Your task to perform on an android device: turn off picture-in-picture Image 0: 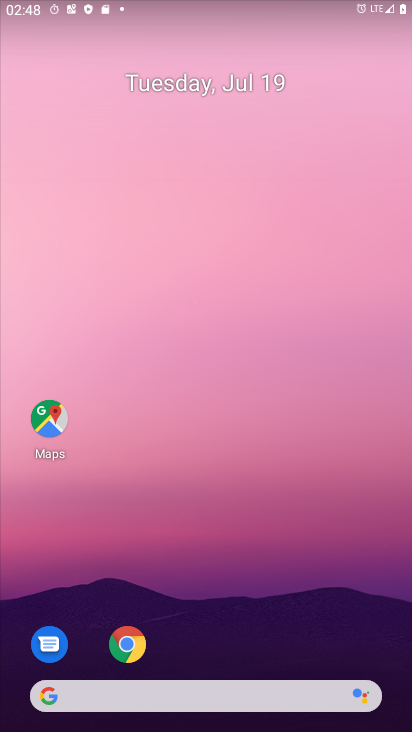
Step 0: drag from (199, 726) to (167, 296)
Your task to perform on an android device: turn off picture-in-picture Image 1: 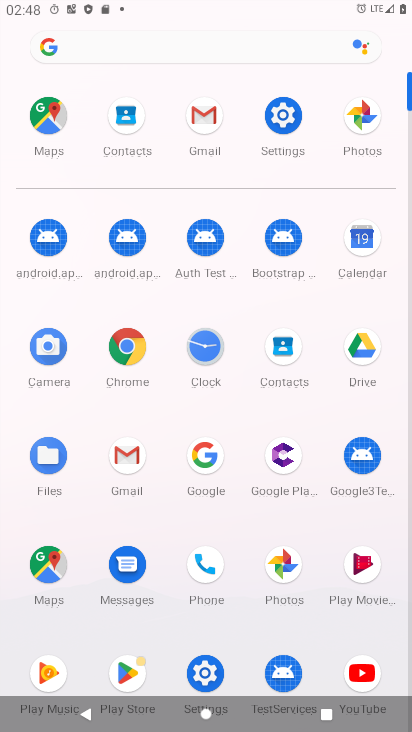
Step 1: click (289, 112)
Your task to perform on an android device: turn off picture-in-picture Image 2: 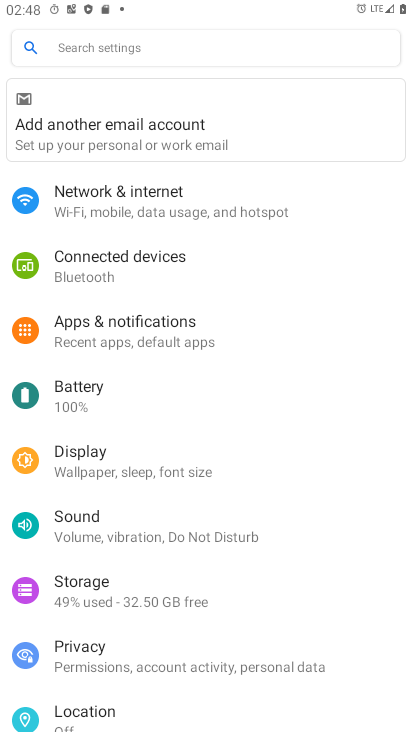
Step 2: click (97, 333)
Your task to perform on an android device: turn off picture-in-picture Image 3: 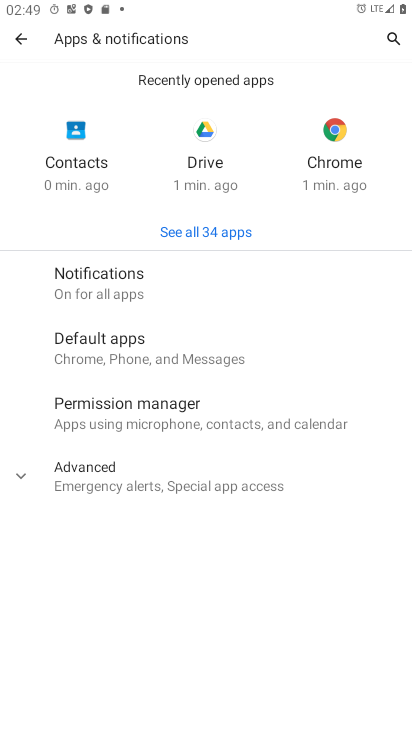
Step 3: click (67, 469)
Your task to perform on an android device: turn off picture-in-picture Image 4: 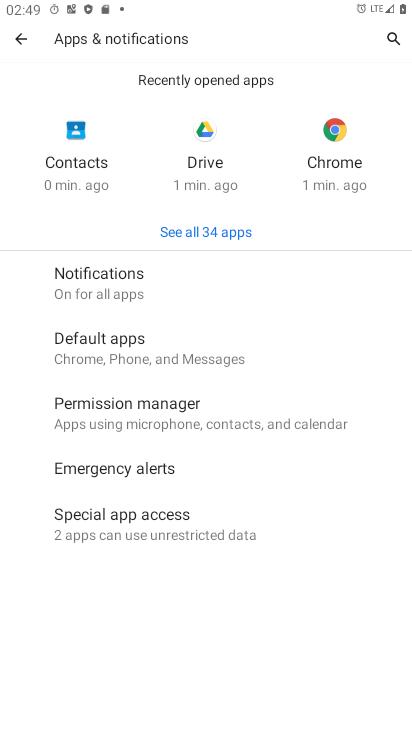
Step 4: click (155, 526)
Your task to perform on an android device: turn off picture-in-picture Image 5: 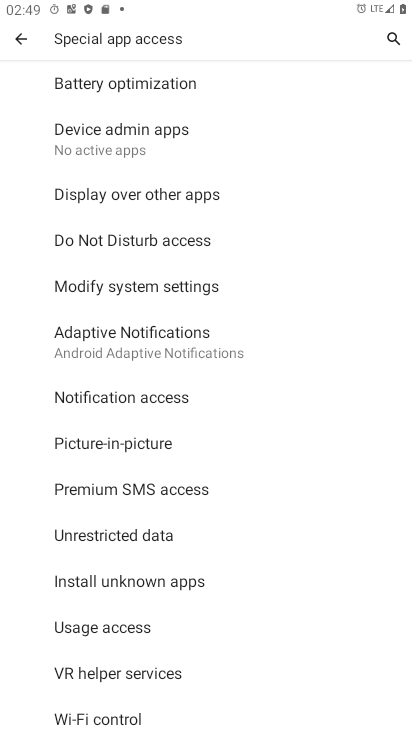
Step 5: click (99, 442)
Your task to perform on an android device: turn off picture-in-picture Image 6: 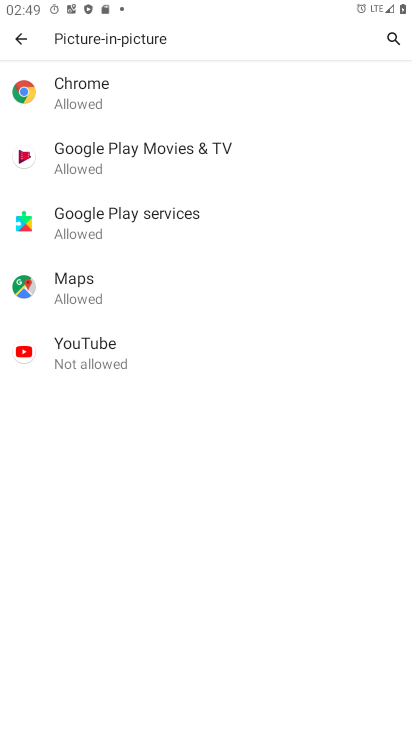
Step 6: click (65, 350)
Your task to perform on an android device: turn off picture-in-picture Image 7: 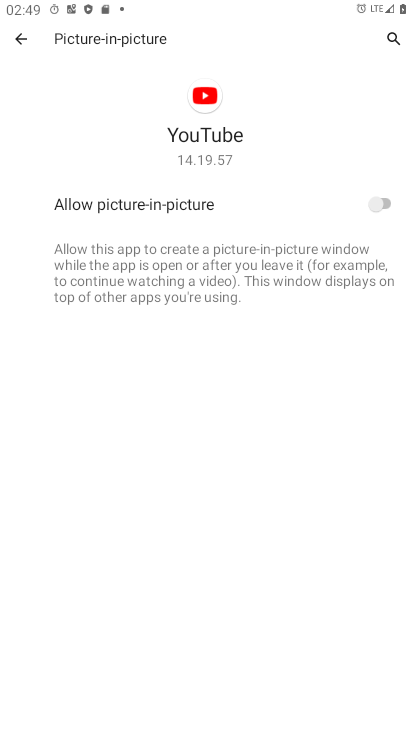
Step 7: task complete